Your task to perform on an android device: open app "DoorDash - Dasher" Image 0: 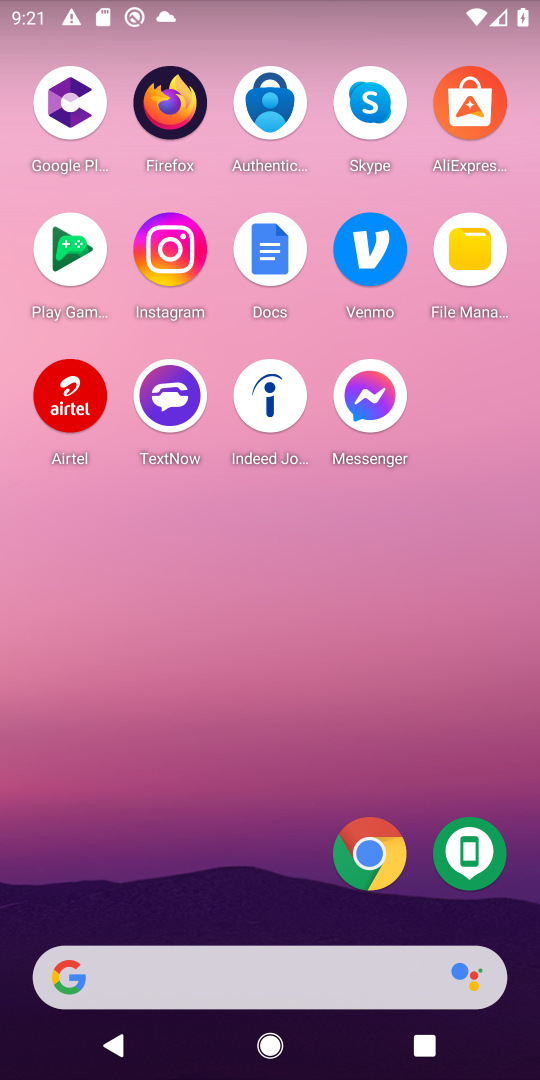
Step 0: drag from (241, 670) to (261, 32)
Your task to perform on an android device: open app "DoorDash - Dasher" Image 1: 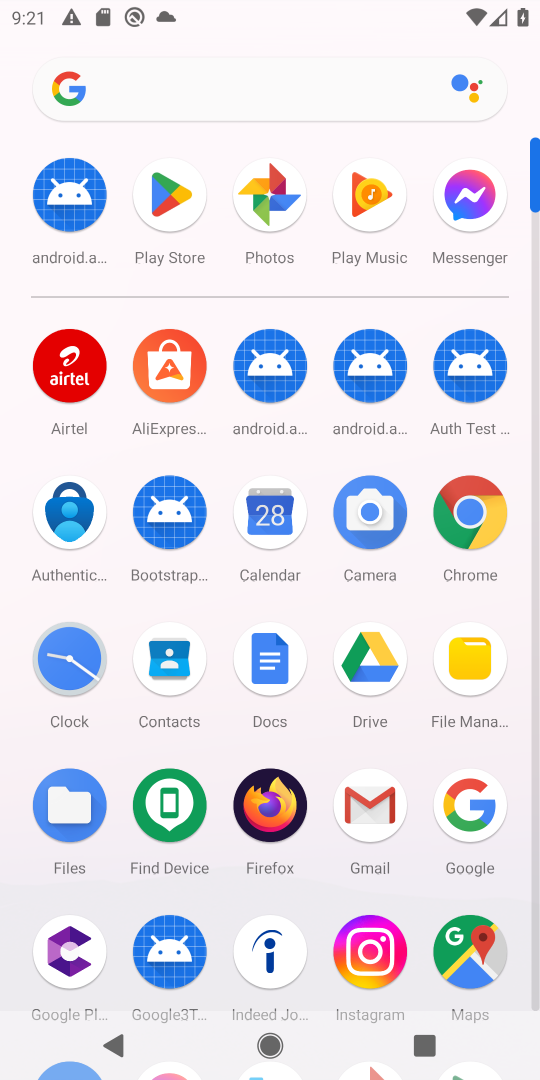
Step 1: click (152, 188)
Your task to perform on an android device: open app "DoorDash - Dasher" Image 2: 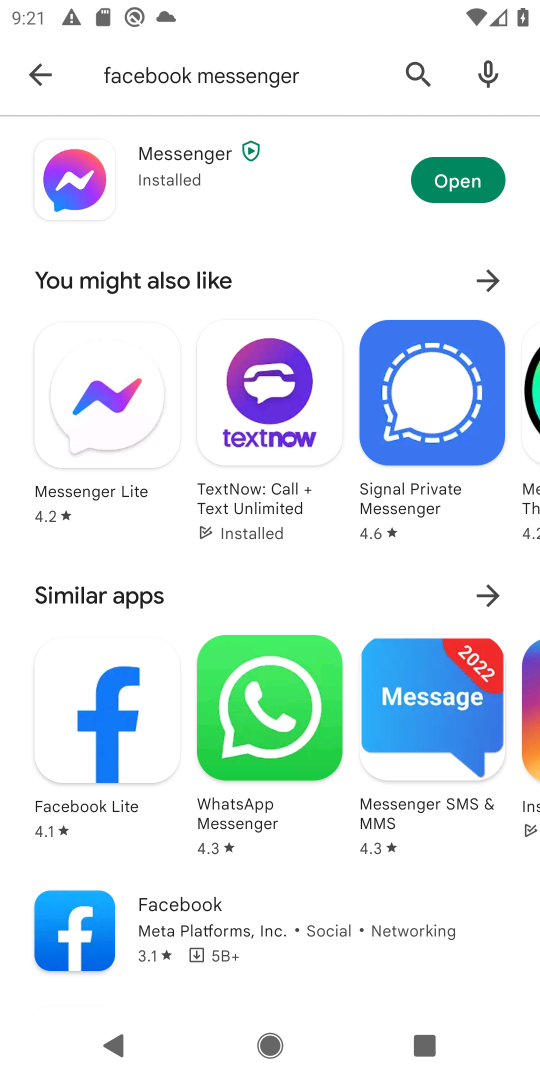
Step 2: click (49, 67)
Your task to perform on an android device: open app "DoorDash - Dasher" Image 3: 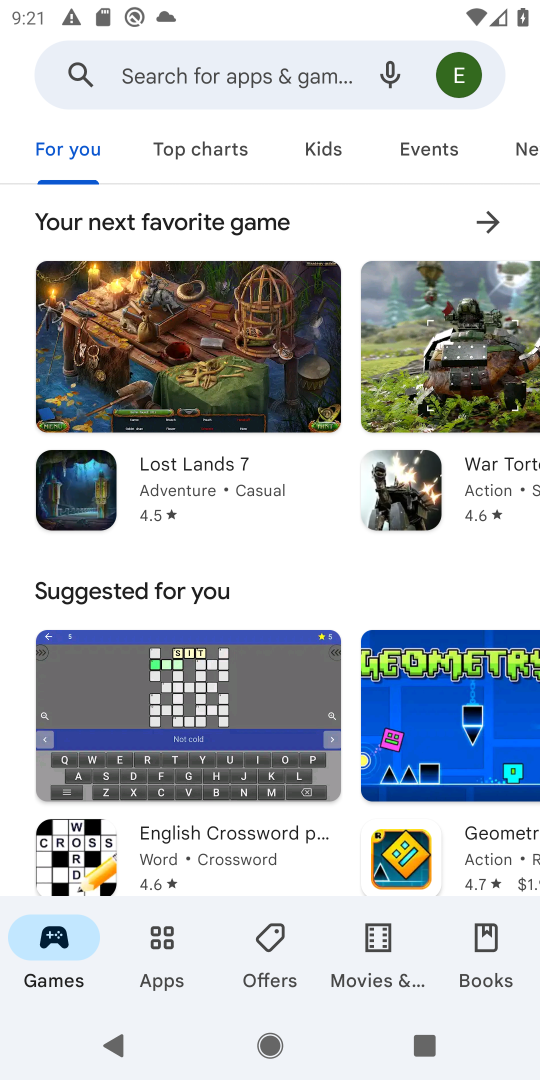
Step 3: click (271, 73)
Your task to perform on an android device: open app "DoorDash - Dasher" Image 4: 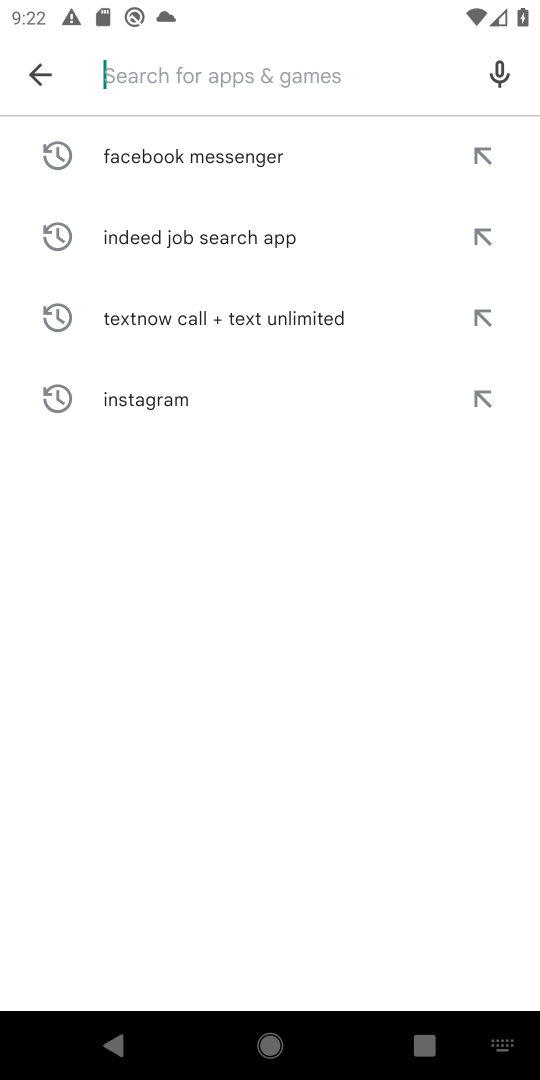
Step 4: type "doordash-dasher"
Your task to perform on an android device: open app "DoorDash - Dasher" Image 5: 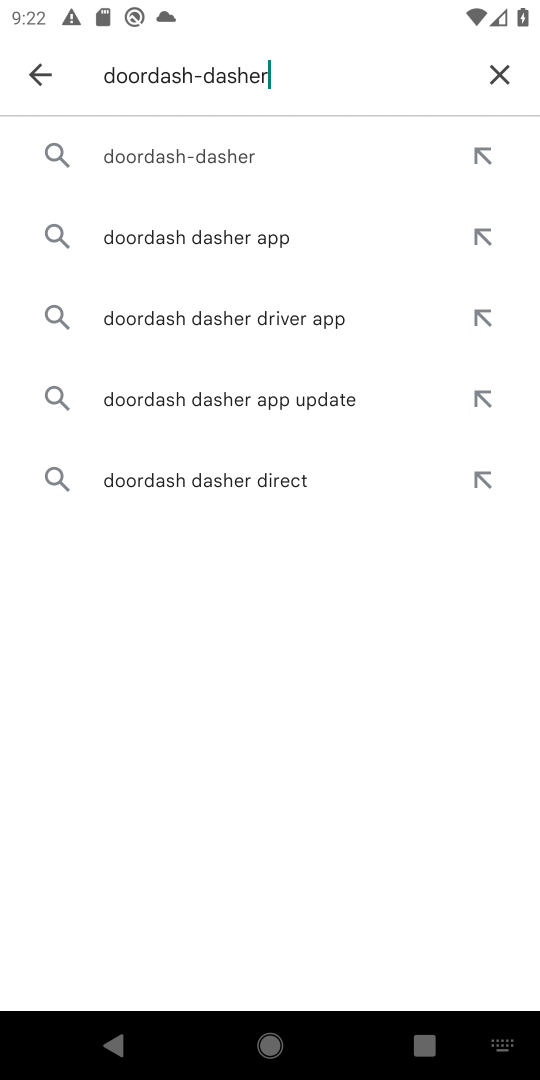
Step 5: click (129, 162)
Your task to perform on an android device: open app "DoorDash - Dasher" Image 6: 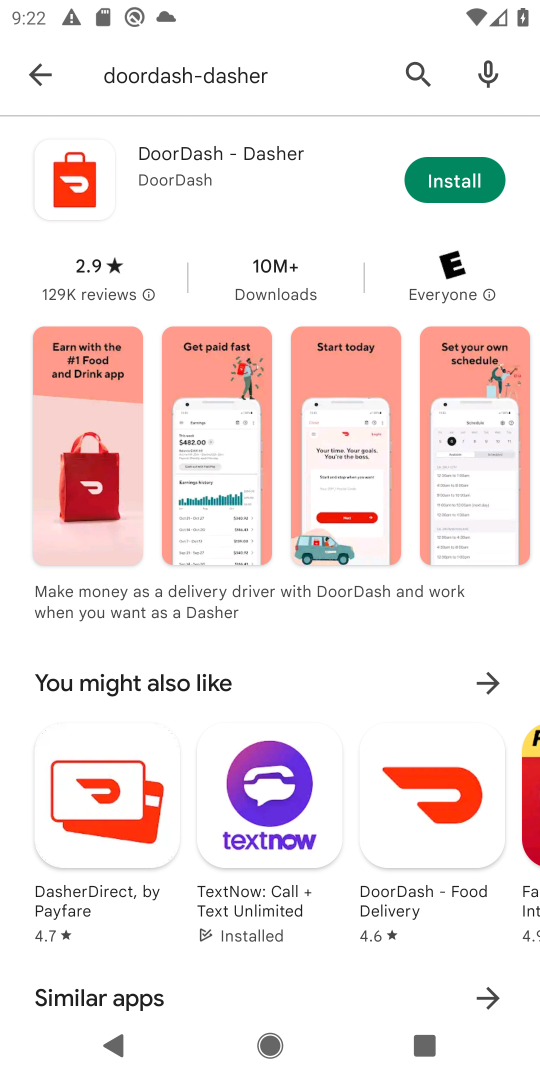
Step 6: click (440, 164)
Your task to perform on an android device: open app "DoorDash - Dasher" Image 7: 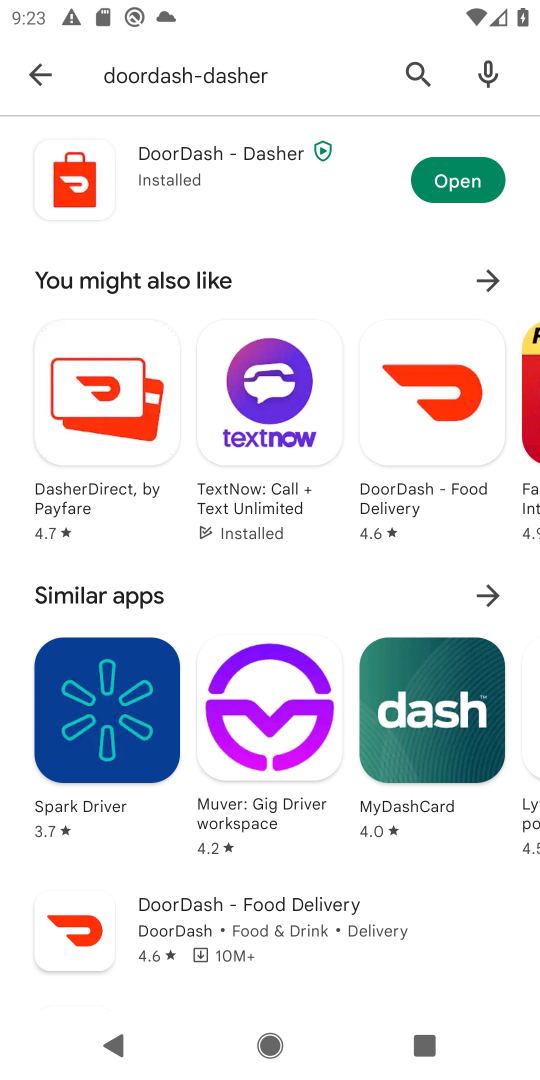
Step 7: click (479, 169)
Your task to perform on an android device: open app "DoorDash - Dasher" Image 8: 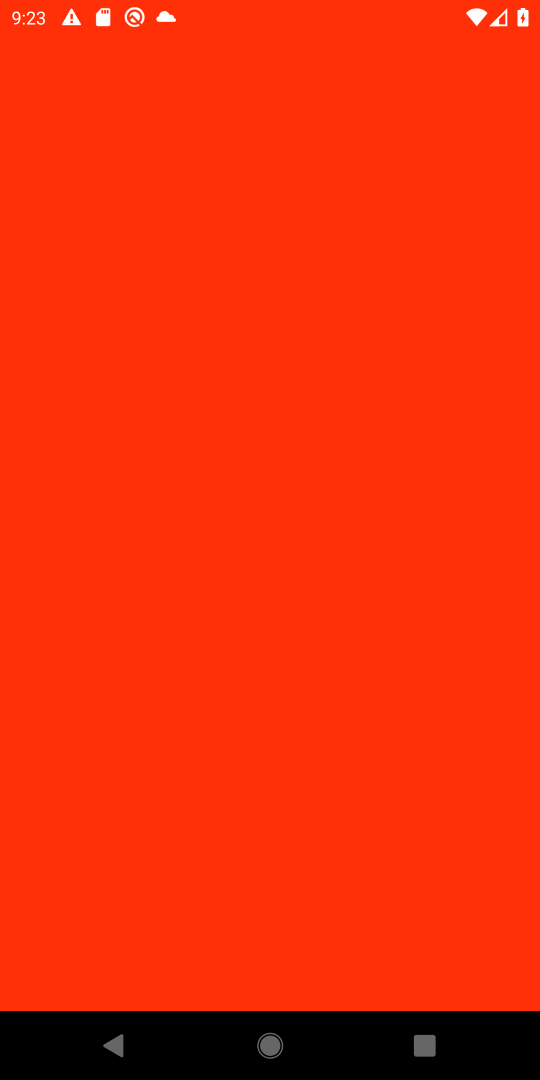
Step 8: task complete